Your task to perform on an android device: open app "Lyft - Rideshare, Bikes, Scooters & Transit" (install if not already installed), go to login, and select forgot password Image 0: 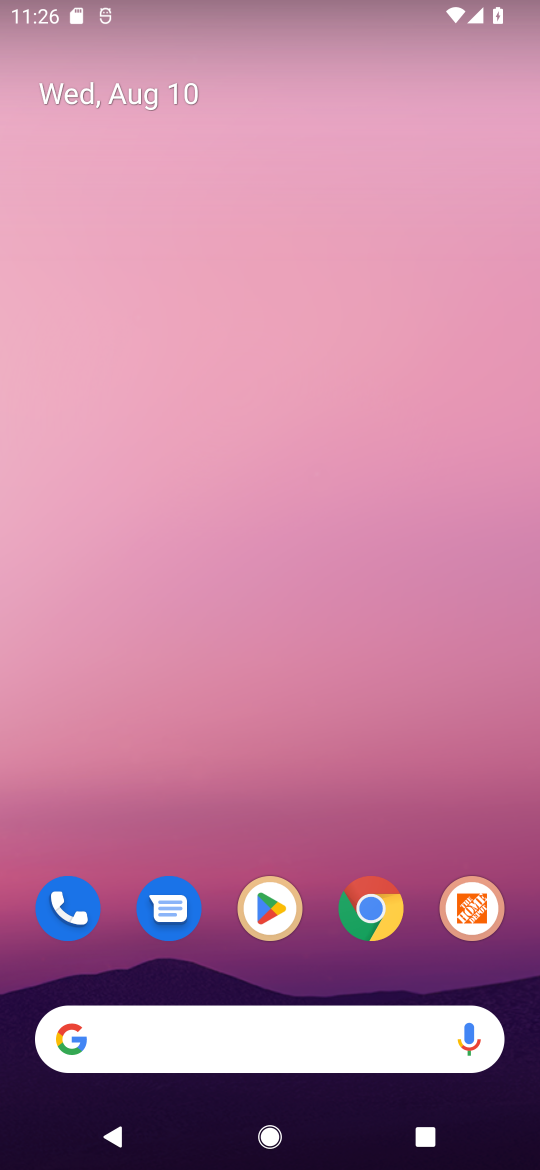
Step 0: click (252, 908)
Your task to perform on an android device: open app "Lyft - Rideshare, Bikes, Scooters & Transit" (install if not already installed), go to login, and select forgot password Image 1: 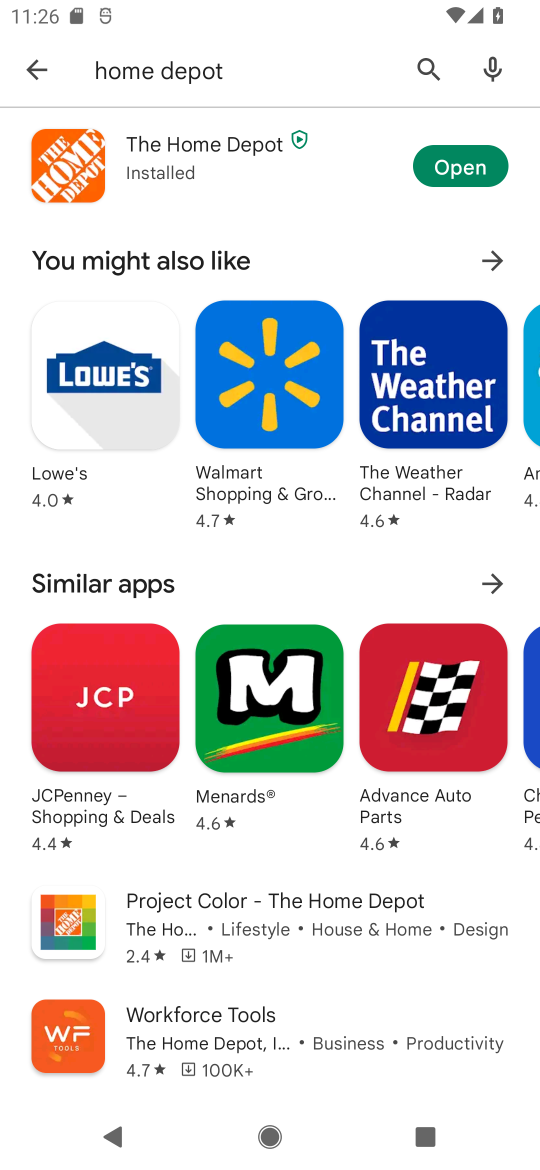
Step 1: click (427, 71)
Your task to perform on an android device: open app "Lyft - Rideshare, Bikes, Scooters & Transit" (install if not already installed), go to login, and select forgot password Image 2: 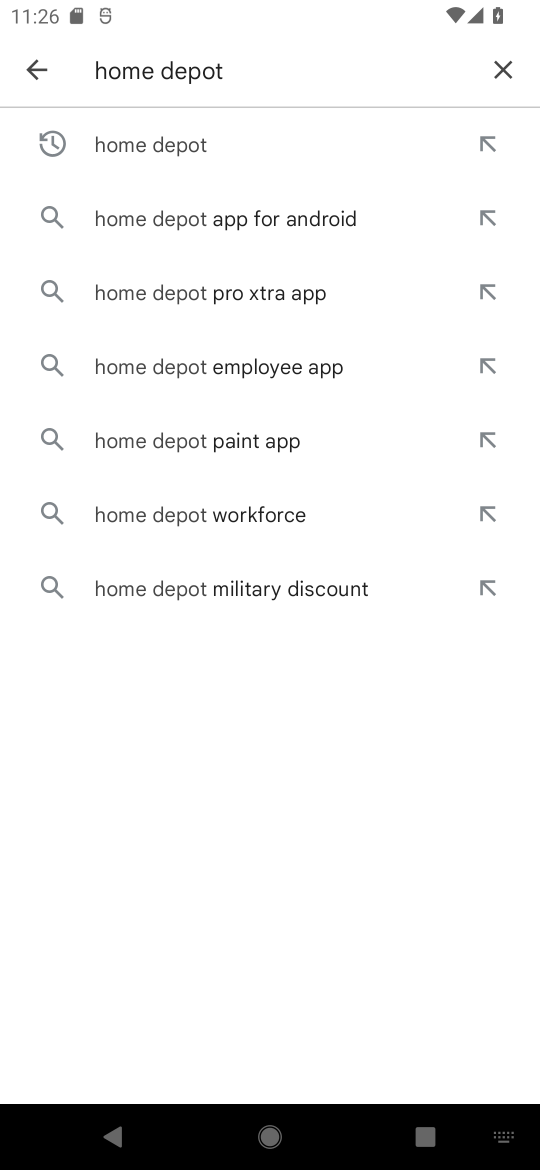
Step 2: click (499, 68)
Your task to perform on an android device: open app "Lyft - Rideshare, Bikes, Scooters & Transit" (install if not already installed), go to login, and select forgot password Image 3: 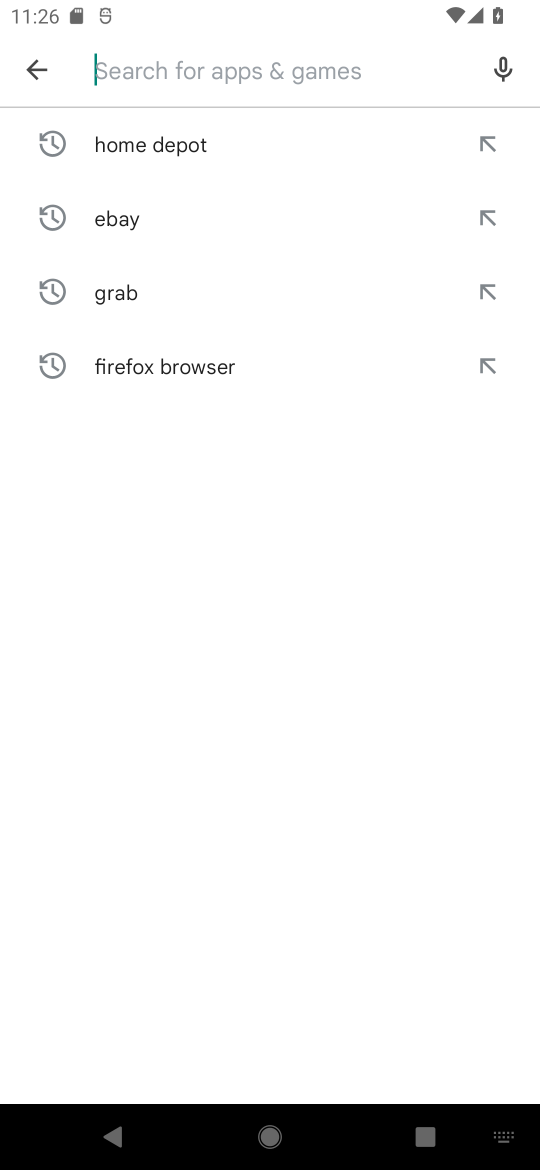
Step 3: type "lyft"
Your task to perform on an android device: open app "Lyft - Rideshare, Bikes, Scooters & Transit" (install if not already installed), go to login, and select forgot password Image 4: 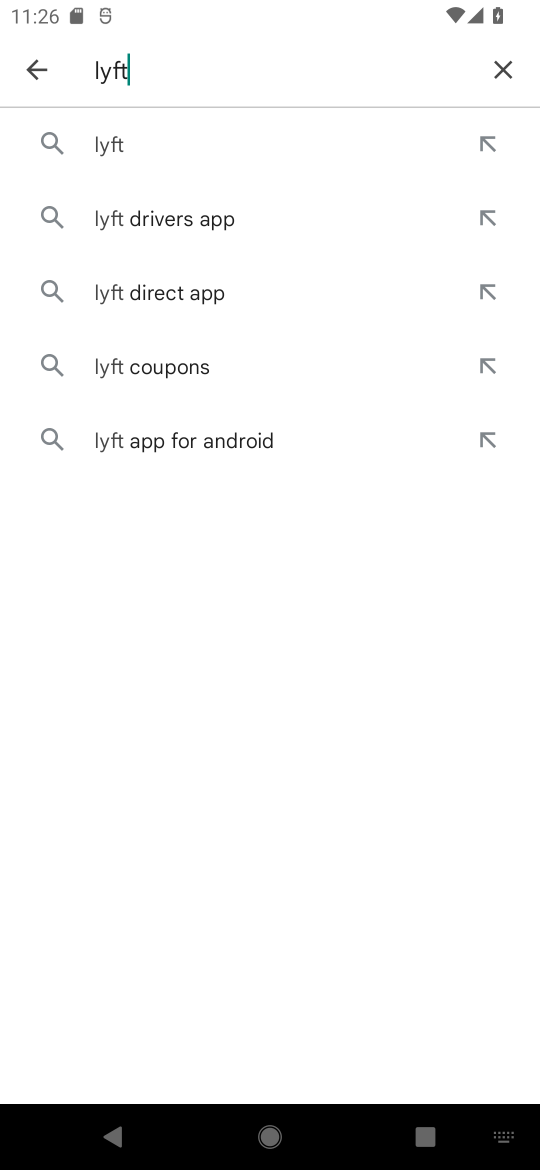
Step 4: click (281, 128)
Your task to perform on an android device: open app "Lyft - Rideshare, Bikes, Scooters & Transit" (install if not already installed), go to login, and select forgot password Image 5: 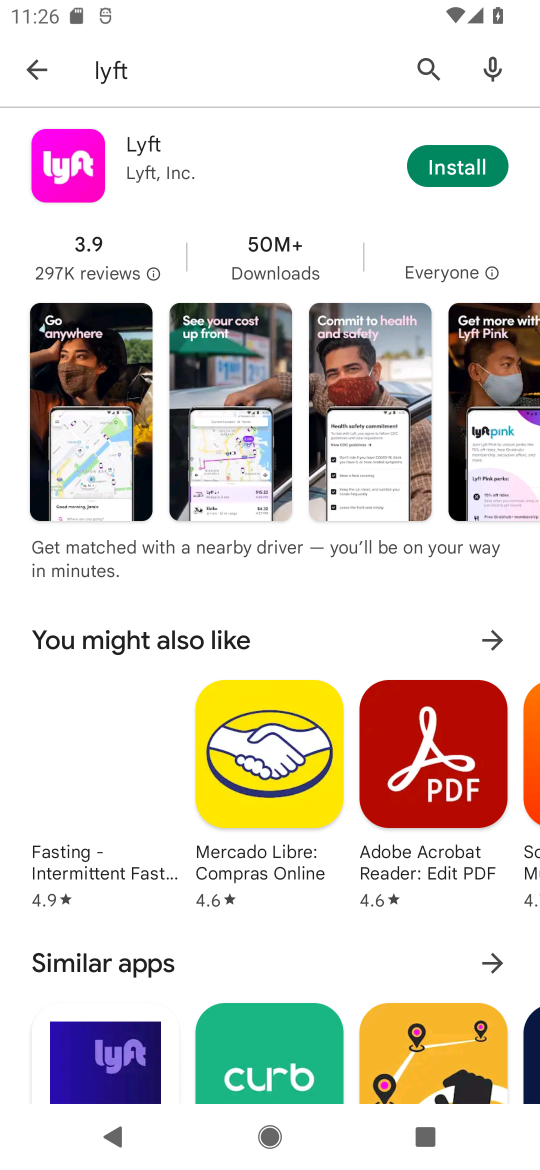
Step 5: click (448, 159)
Your task to perform on an android device: open app "Lyft - Rideshare, Bikes, Scooters & Transit" (install if not already installed), go to login, and select forgot password Image 6: 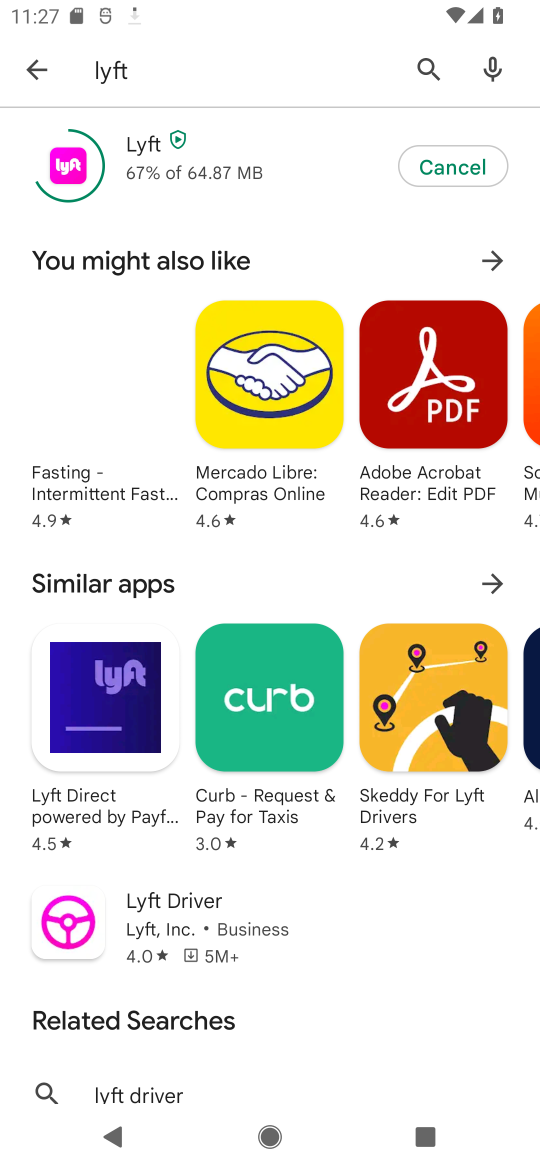
Step 6: click (225, 160)
Your task to perform on an android device: open app "Lyft - Rideshare, Bikes, Scooters & Transit" (install if not already installed), go to login, and select forgot password Image 7: 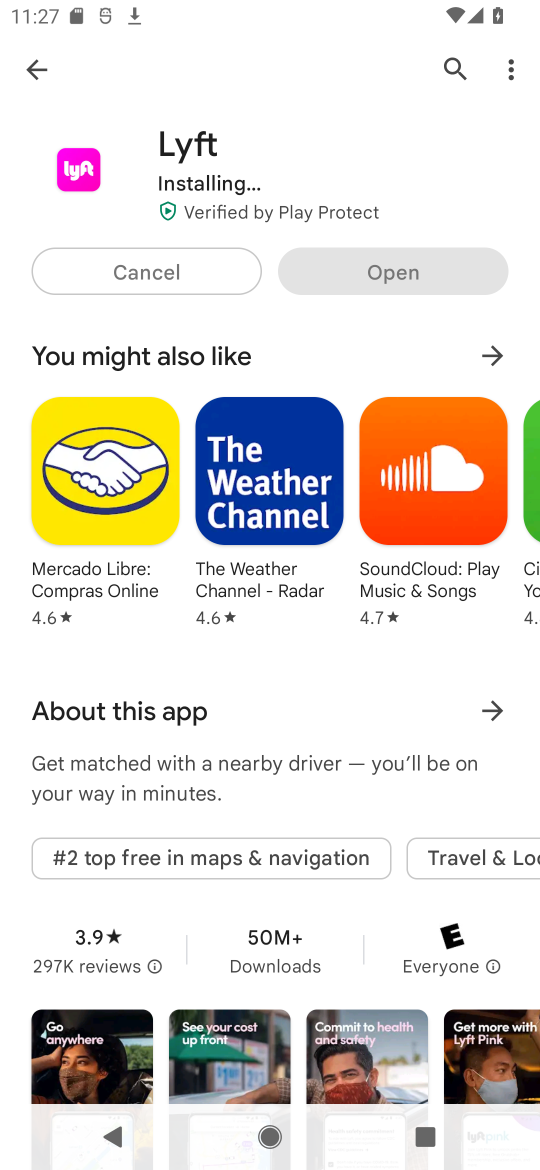
Step 7: click (338, 745)
Your task to perform on an android device: open app "Lyft - Rideshare, Bikes, Scooters & Transit" (install if not already installed), go to login, and select forgot password Image 8: 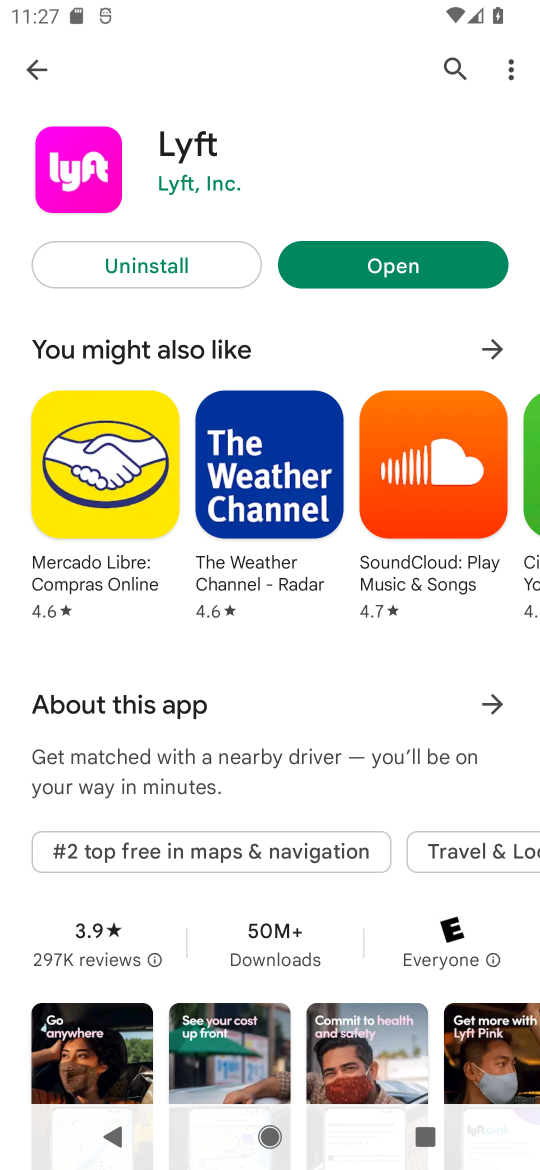
Step 8: click (346, 271)
Your task to perform on an android device: open app "Lyft - Rideshare, Bikes, Scooters & Transit" (install if not already installed), go to login, and select forgot password Image 9: 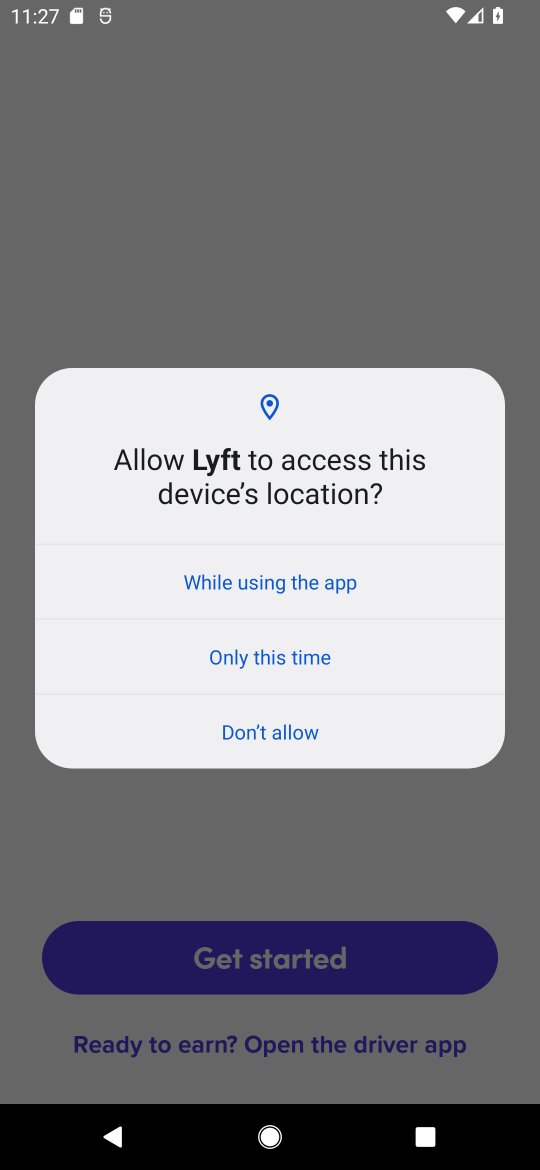
Step 9: click (384, 654)
Your task to perform on an android device: open app "Lyft - Rideshare, Bikes, Scooters & Transit" (install if not already installed), go to login, and select forgot password Image 10: 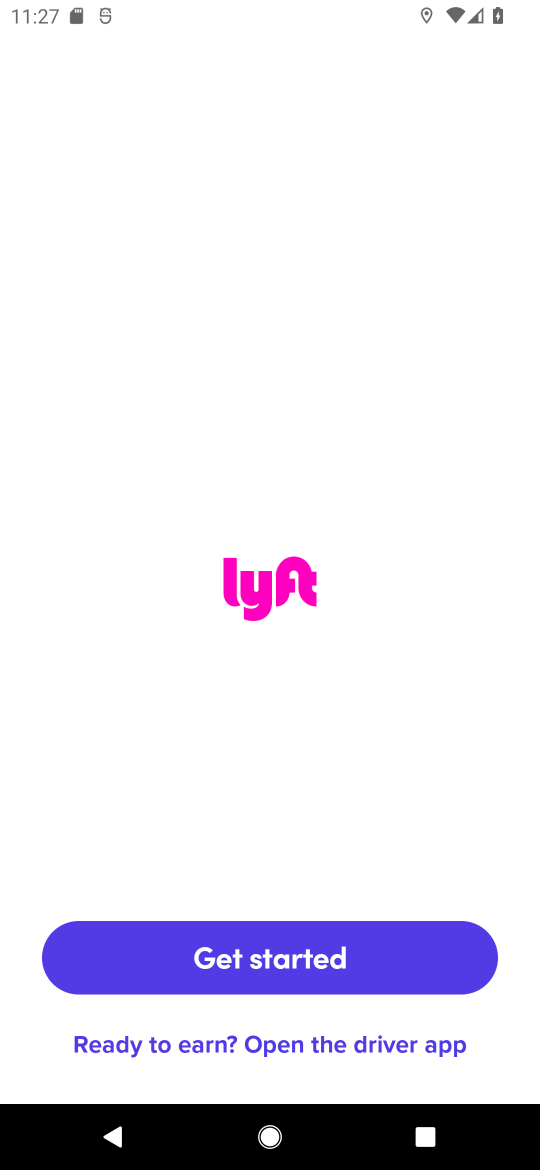
Step 10: click (307, 970)
Your task to perform on an android device: open app "Lyft - Rideshare, Bikes, Scooters & Transit" (install if not already installed), go to login, and select forgot password Image 11: 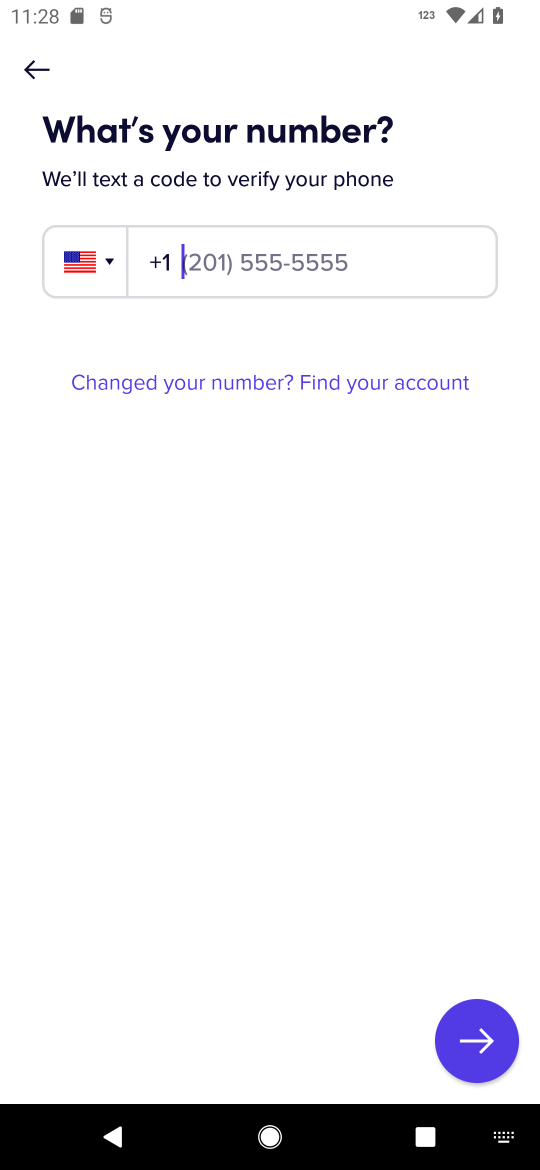
Step 11: click (370, 385)
Your task to perform on an android device: open app "Lyft - Rideshare, Bikes, Scooters & Transit" (install if not already installed), go to login, and select forgot password Image 12: 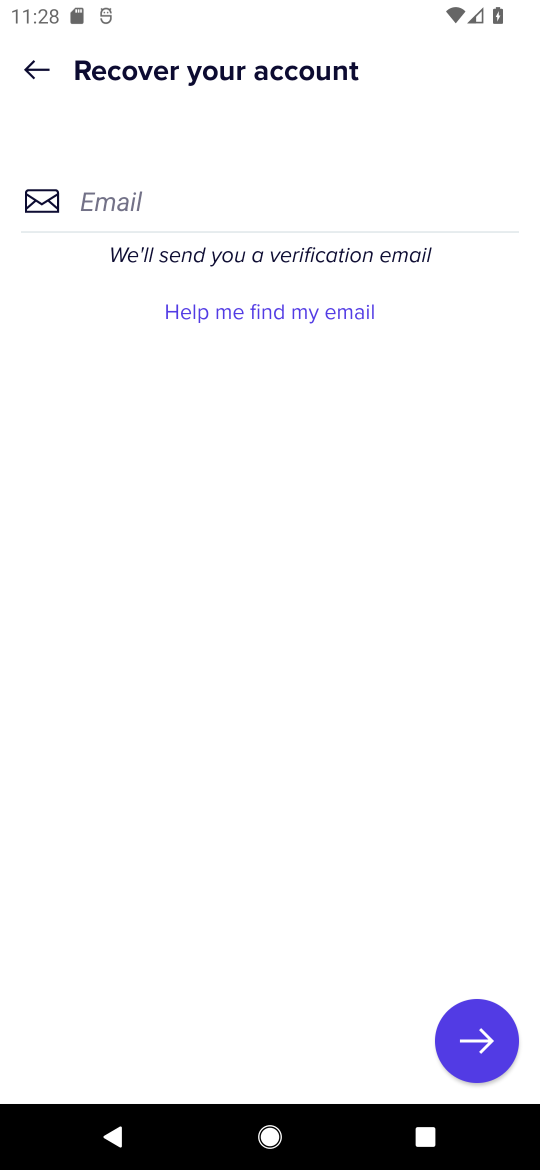
Step 12: task complete